Your task to perform on an android device: open app "Skype" (install if not already installed) Image 0: 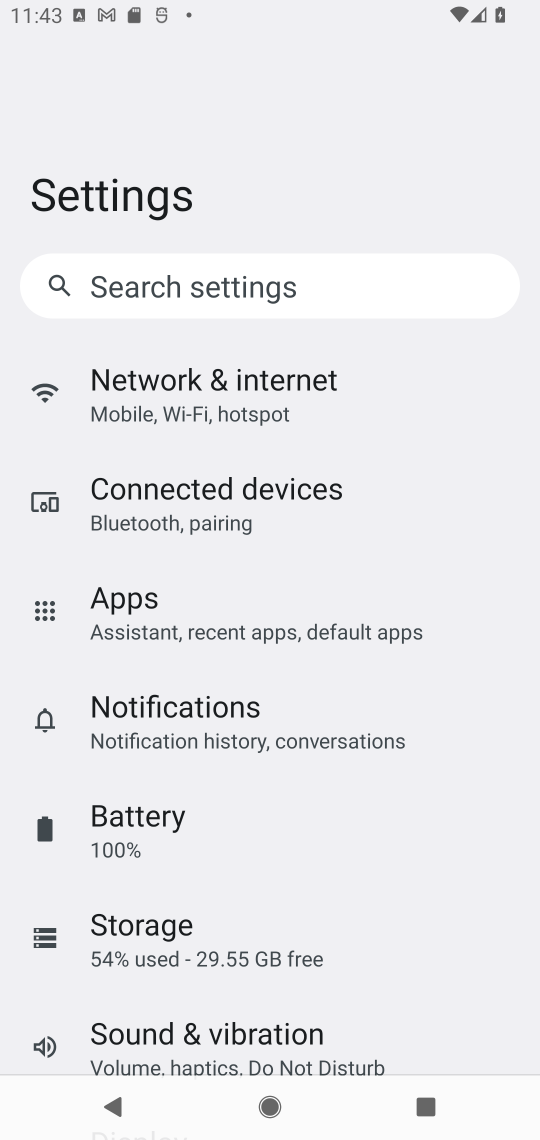
Step 0: press home button
Your task to perform on an android device: open app "Skype" (install if not already installed) Image 1: 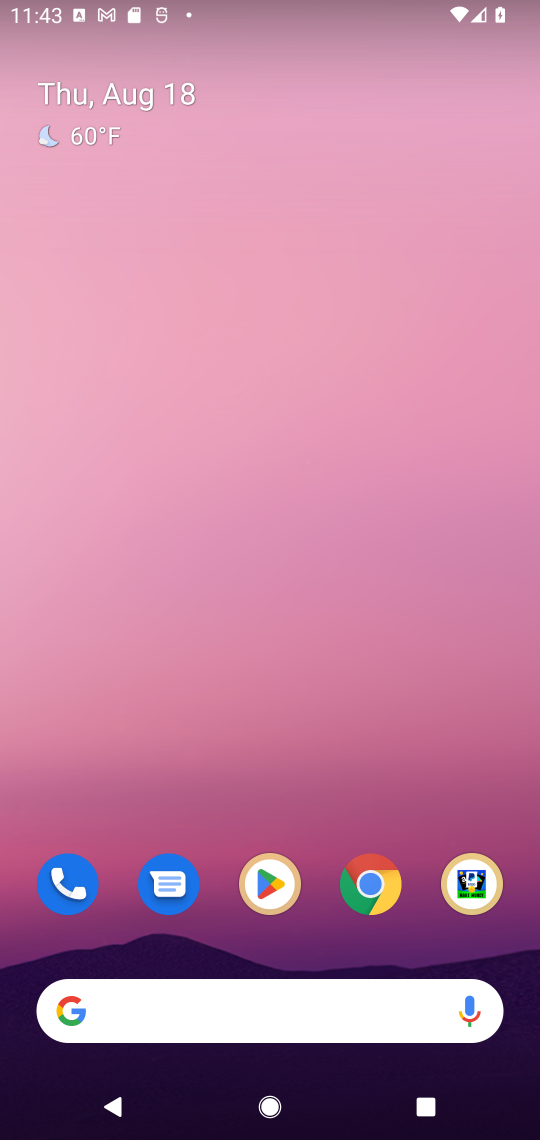
Step 1: drag from (233, 1032) to (375, 280)
Your task to perform on an android device: open app "Skype" (install if not already installed) Image 2: 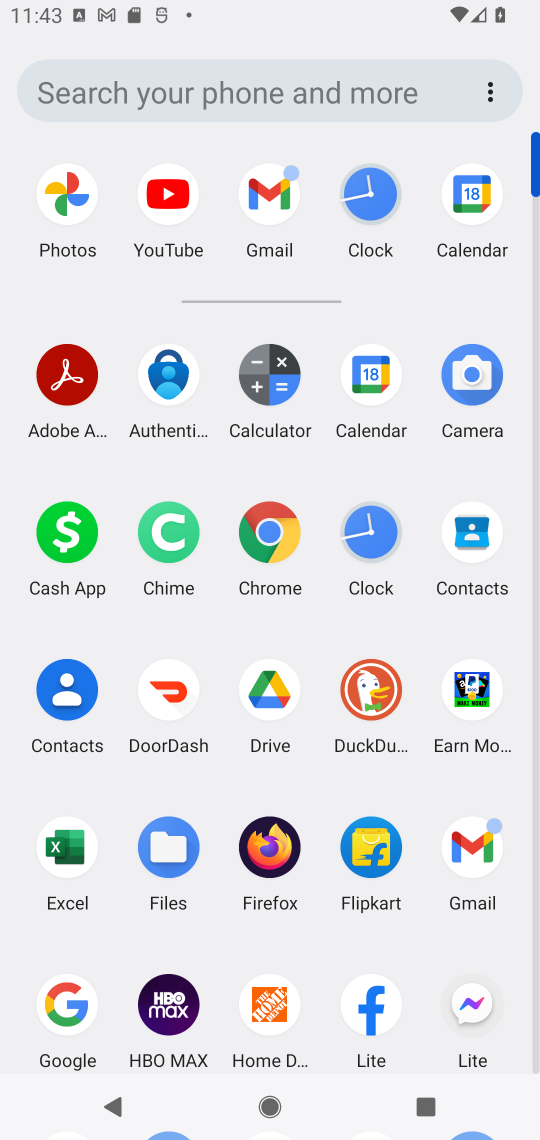
Step 2: drag from (350, 964) to (401, 378)
Your task to perform on an android device: open app "Skype" (install if not already installed) Image 3: 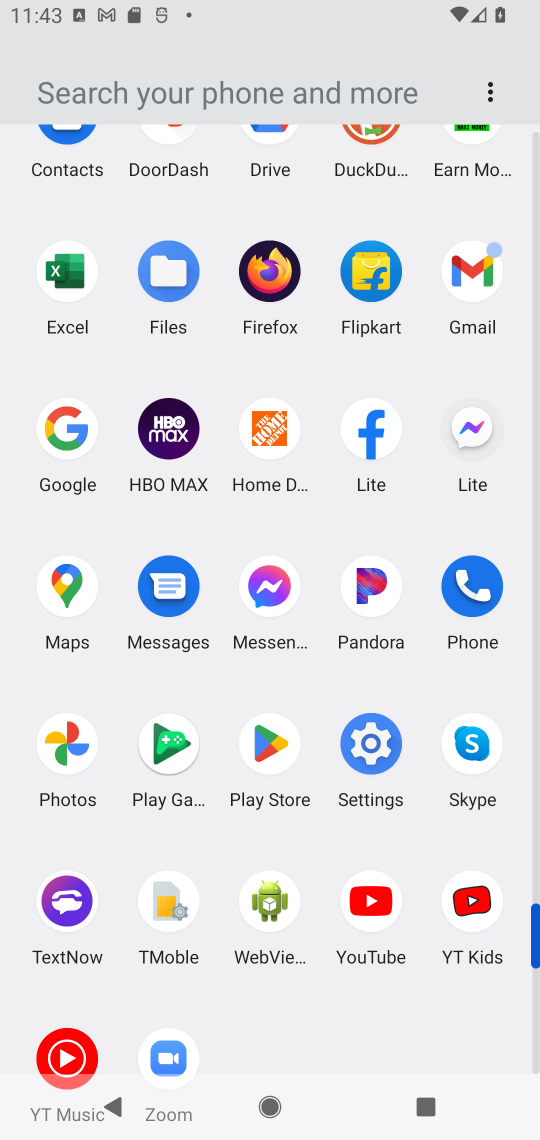
Step 3: click (276, 743)
Your task to perform on an android device: open app "Skype" (install if not already installed) Image 4: 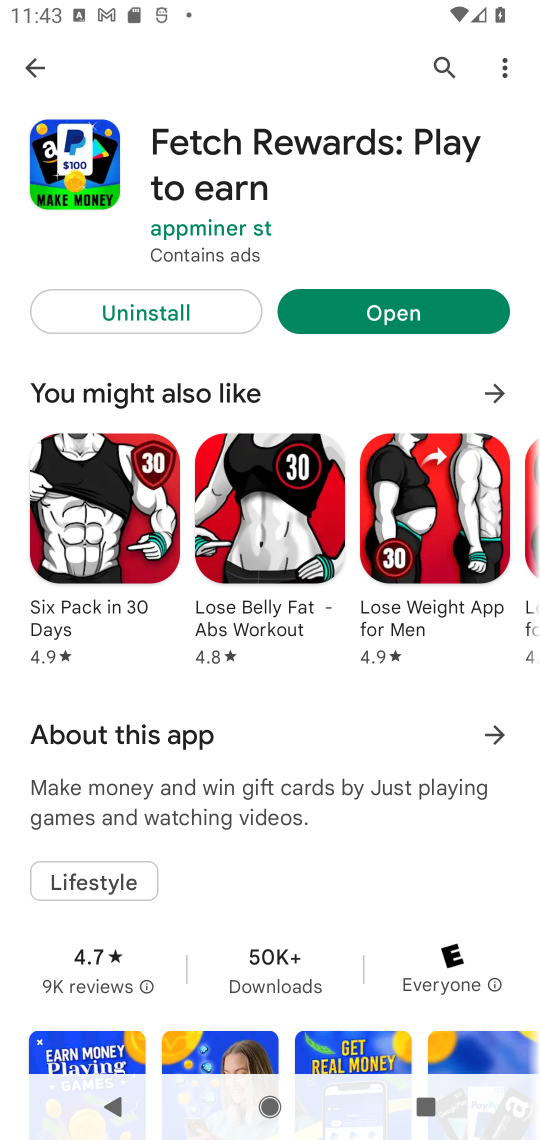
Step 4: press back button
Your task to perform on an android device: open app "Skype" (install if not already installed) Image 5: 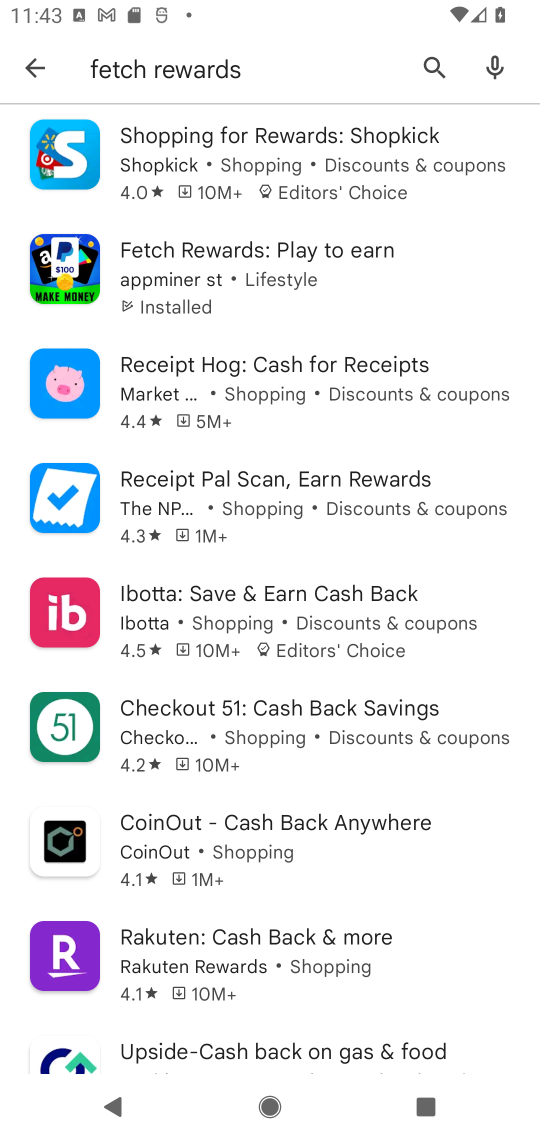
Step 5: press back button
Your task to perform on an android device: open app "Skype" (install if not already installed) Image 6: 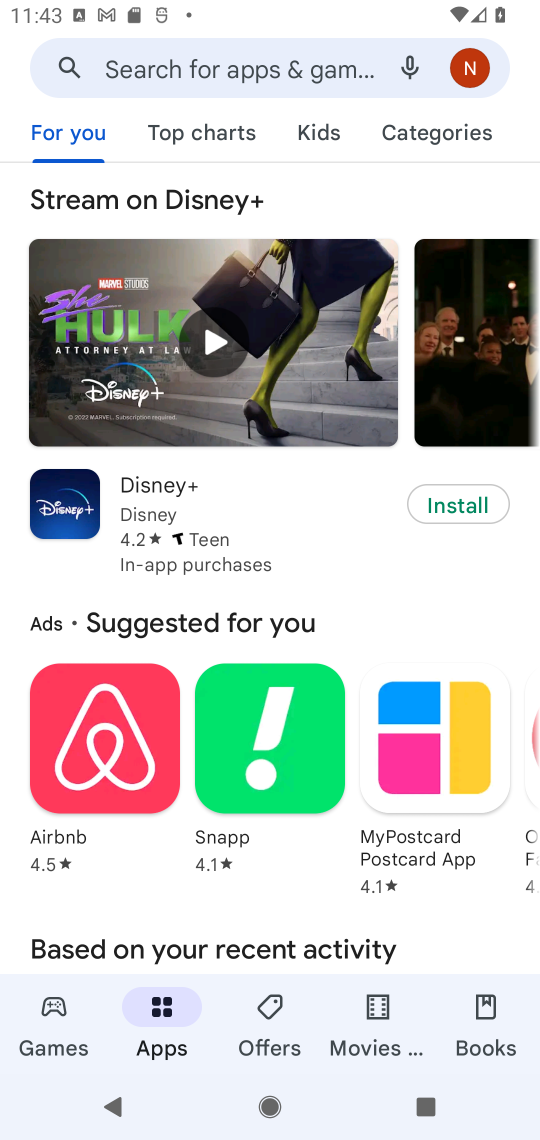
Step 6: click (289, 74)
Your task to perform on an android device: open app "Skype" (install if not already installed) Image 7: 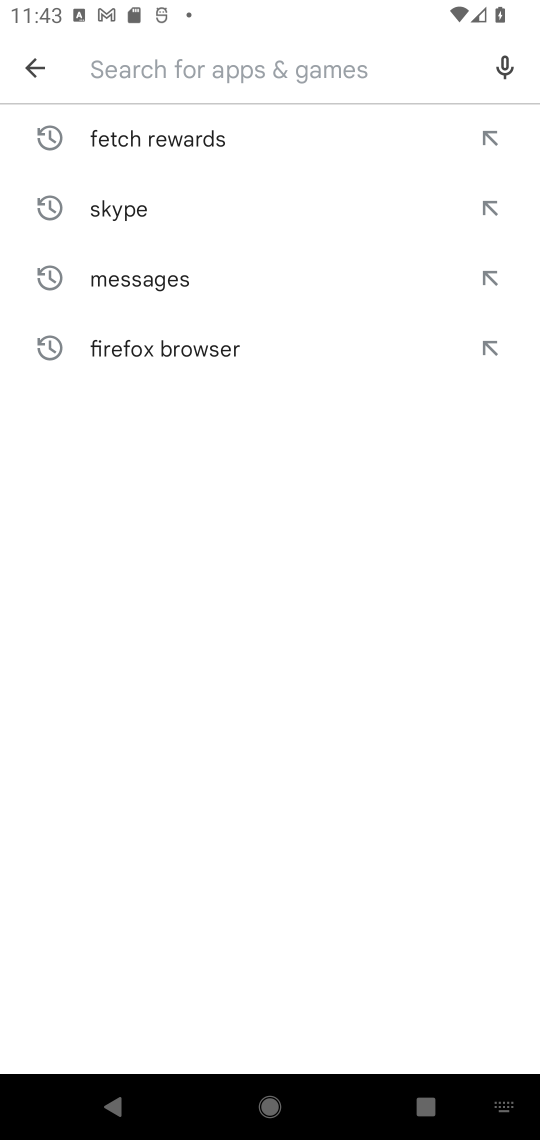
Step 7: click (120, 205)
Your task to perform on an android device: open app "Skype" (install if not already installed) Image 8: 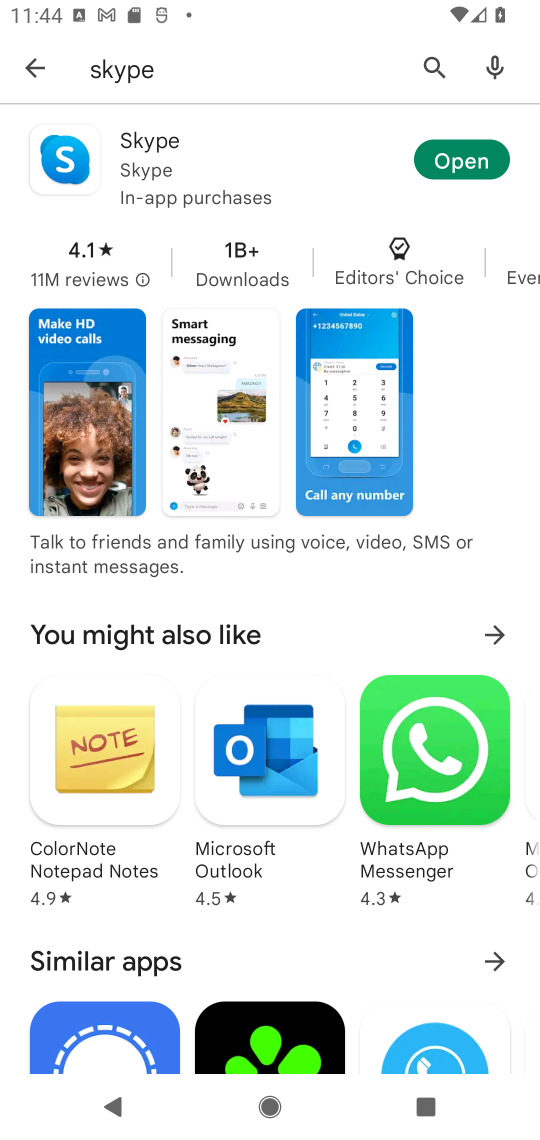
Step 8: click (481, 158)
Your task to perform on an android device: open app "Skype" (install if not already installed) Image 9: 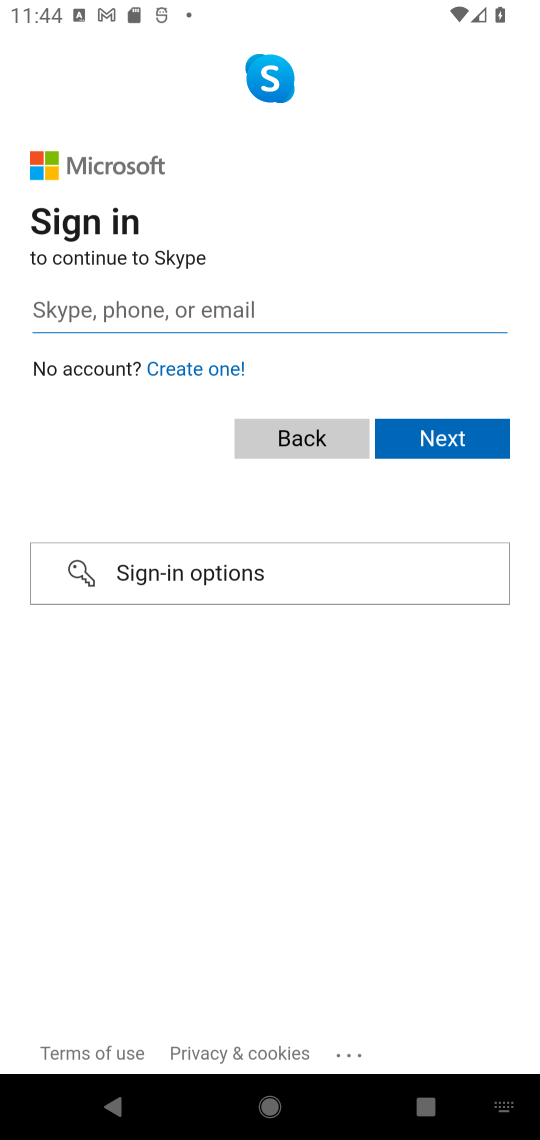
Step 9: task complete